Your task to perform on an android device: turn off location Image 0: 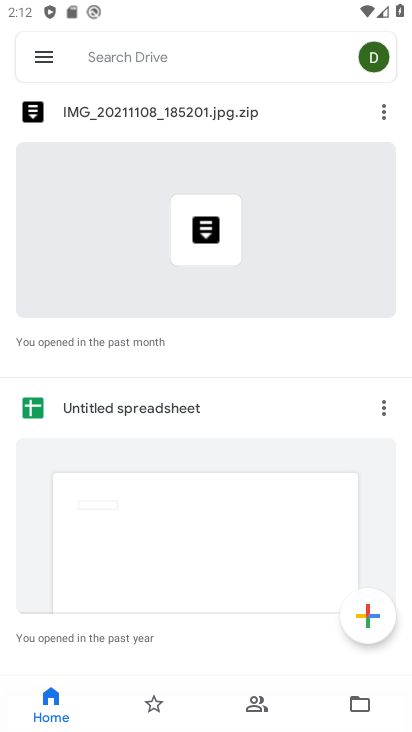
Step 0: press home button
Your task to perform on an android device: turn off location Image 1: 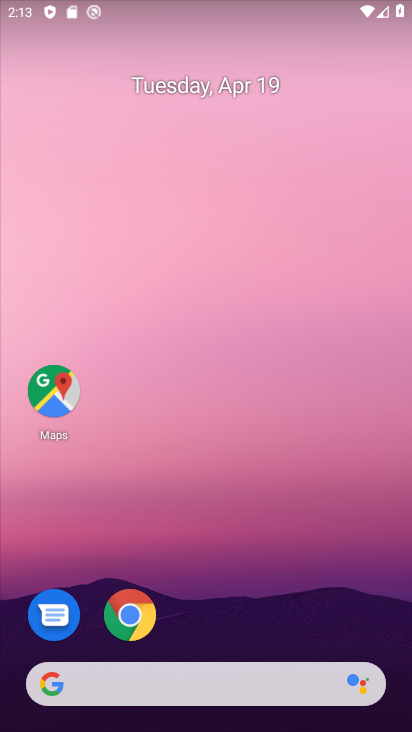
Step 1: drag from (212, 496) to (265, 70)
Your task to perform on an android device: turn off location Image 2: 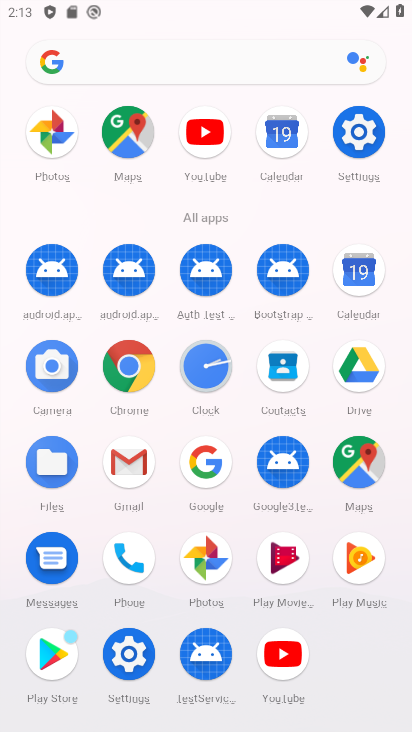
Step 2: click (361, 126)
Your task to perform on an android device: turn off location Image 3: 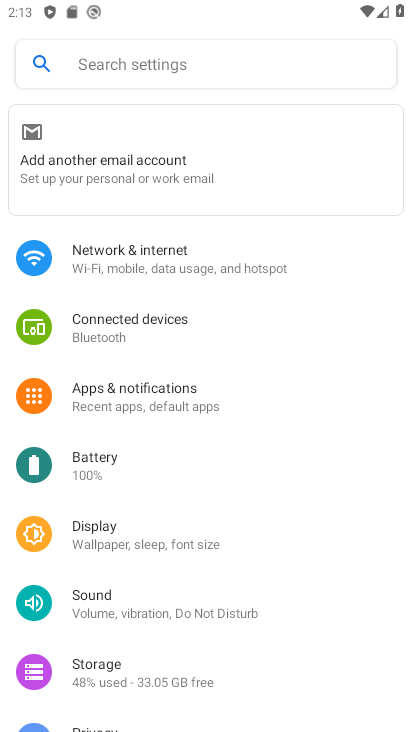
Step 3: drag from (143, 612) to (178, 332)
Your task to perform on an android device: turn off location Image 4: 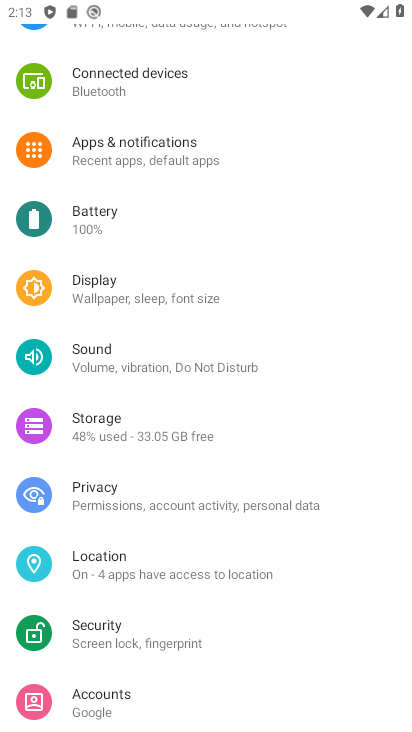
Step 4: click (147, 562)
Your task to perform on an android device: turn off location Image 5: 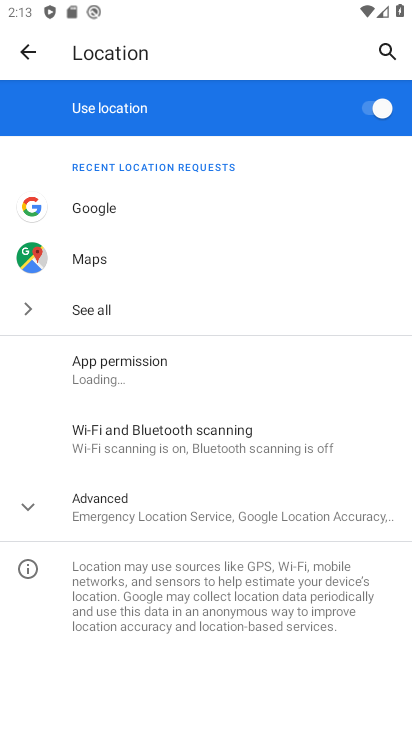
Step 5: click (374, 107)
Your task to perform on an android device: turn off location Image 6: 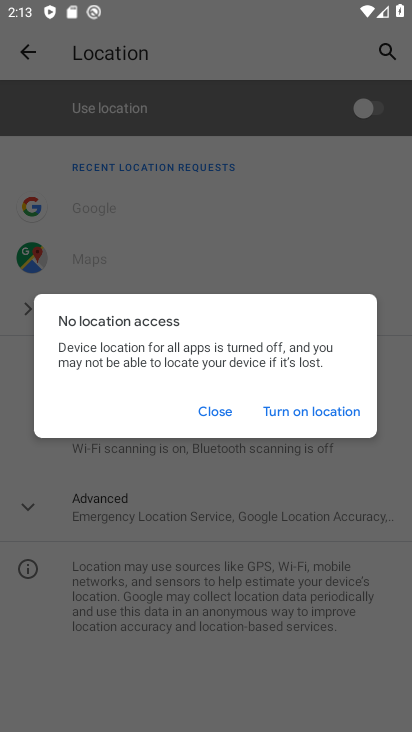
Step 6: click (216, 417)
Your task to perform on an android device: turn off location Image 7: 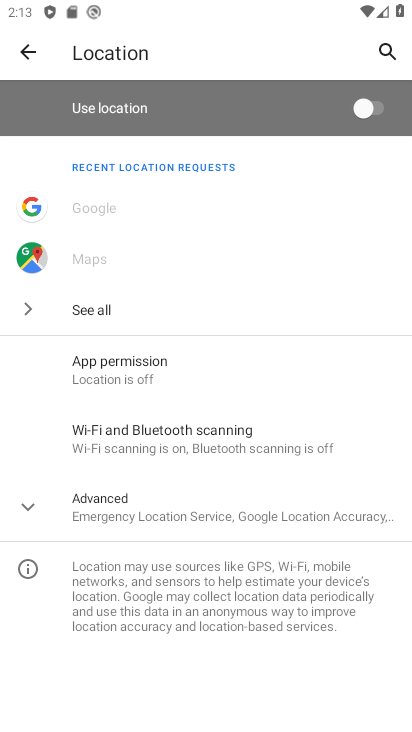
Step 7: task complete